Your task to perform on an android device: Open Android settings Image 0: 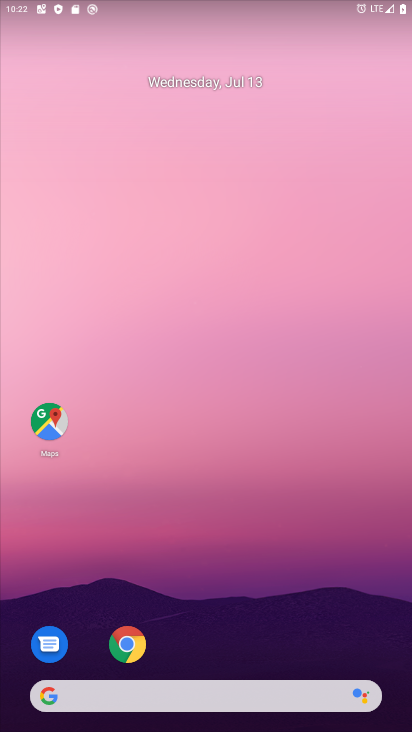
Step 0: drag from (231, 727) to (272, 141)
Your task to perform on an android device: Open Android settings Image 1: 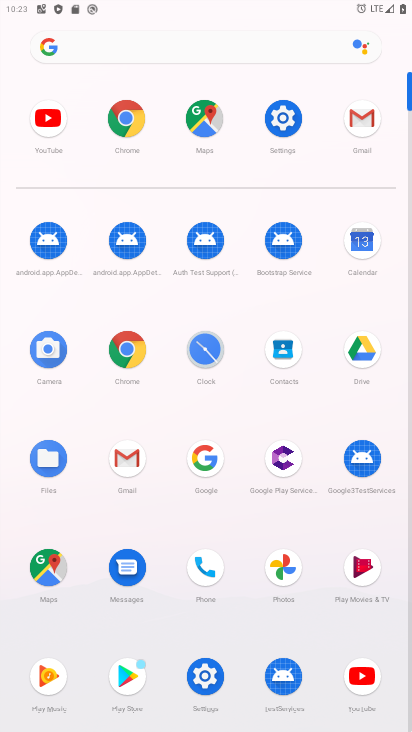
Step 1: click (278, 119)
Your task to perform on an android device: Open Android settings Image 2: 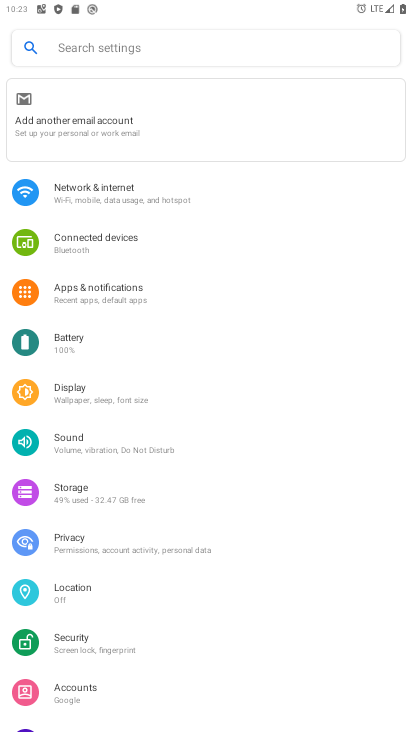
Step 2: task complete